Your task to perform on an android device: open app "TextNow: Call + Text Unlimited" (install if not already installed) Image 0: 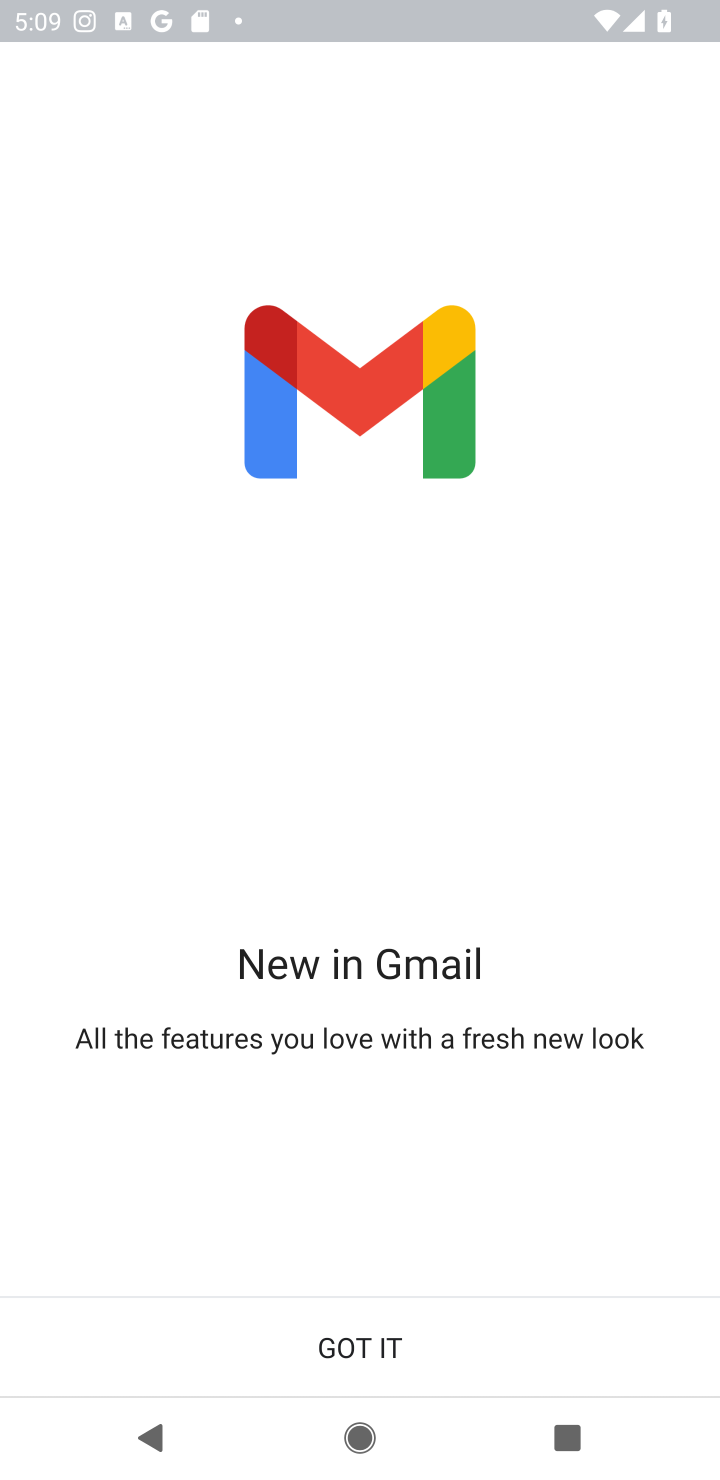
Step 0: press home button
Your task to perform on an android device: open app "TextNow: Call + Text Unlimited" (install if not already installed) Image 1: 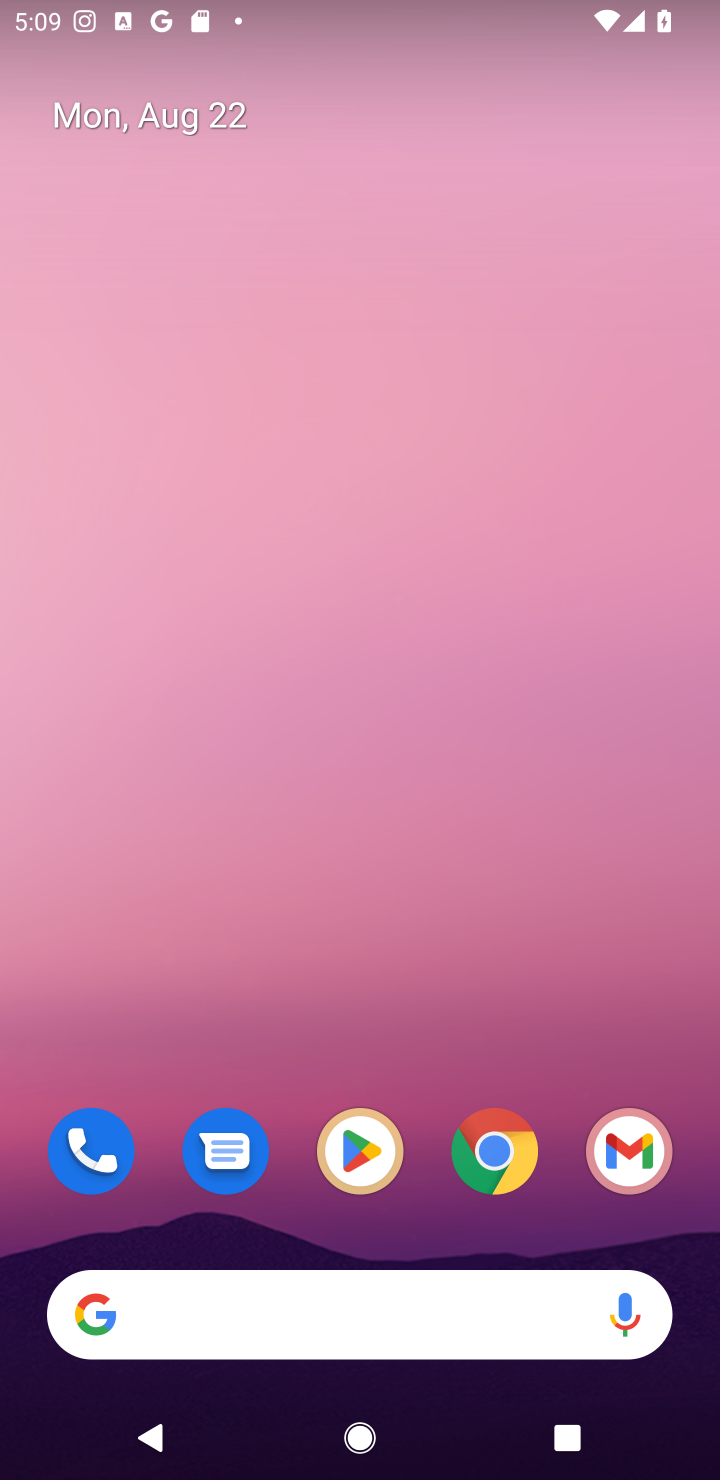
Step 1: click (355, 1138)
Your task to perform on an android device: open app "TextNow: Call + Text Unlimited" (install if not already installed) Image 2: 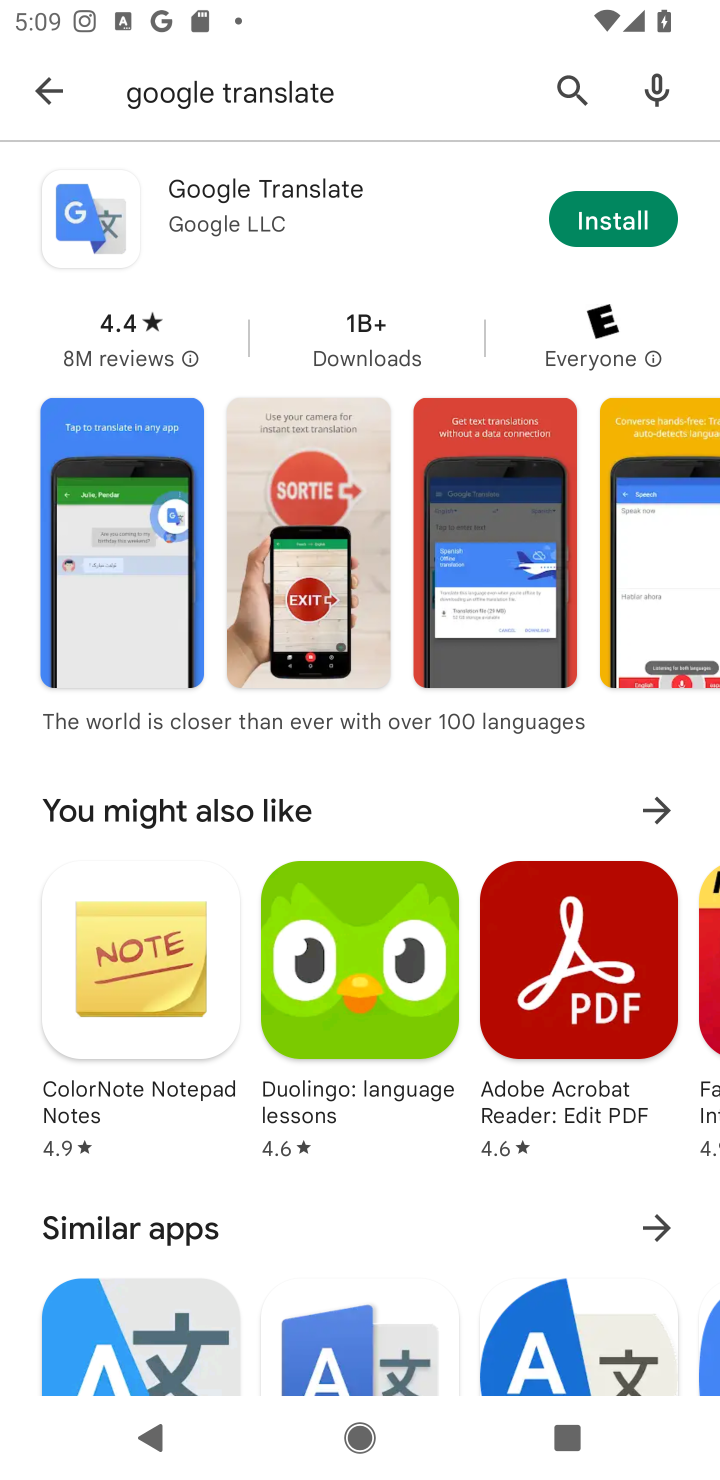
Step 2: click (566, 77)
Your task to perform on an android device: open app "TextNow: Call + Text Unlimited" (install if not already installed) Image 3: 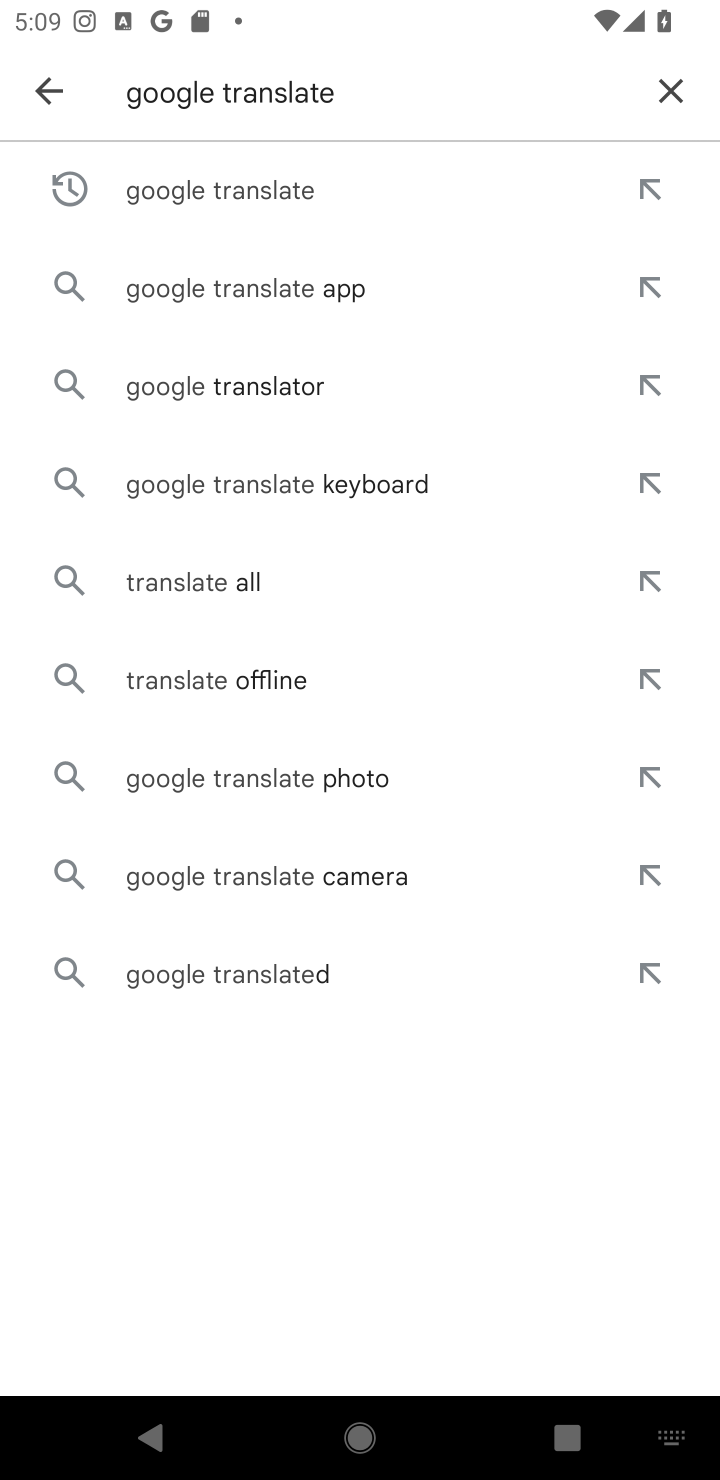
Step 3: click (660, 87)
Your task to perform on an android device: open app "TextNow: Call + Text Unlimited" (install if not already installed) Image 4: 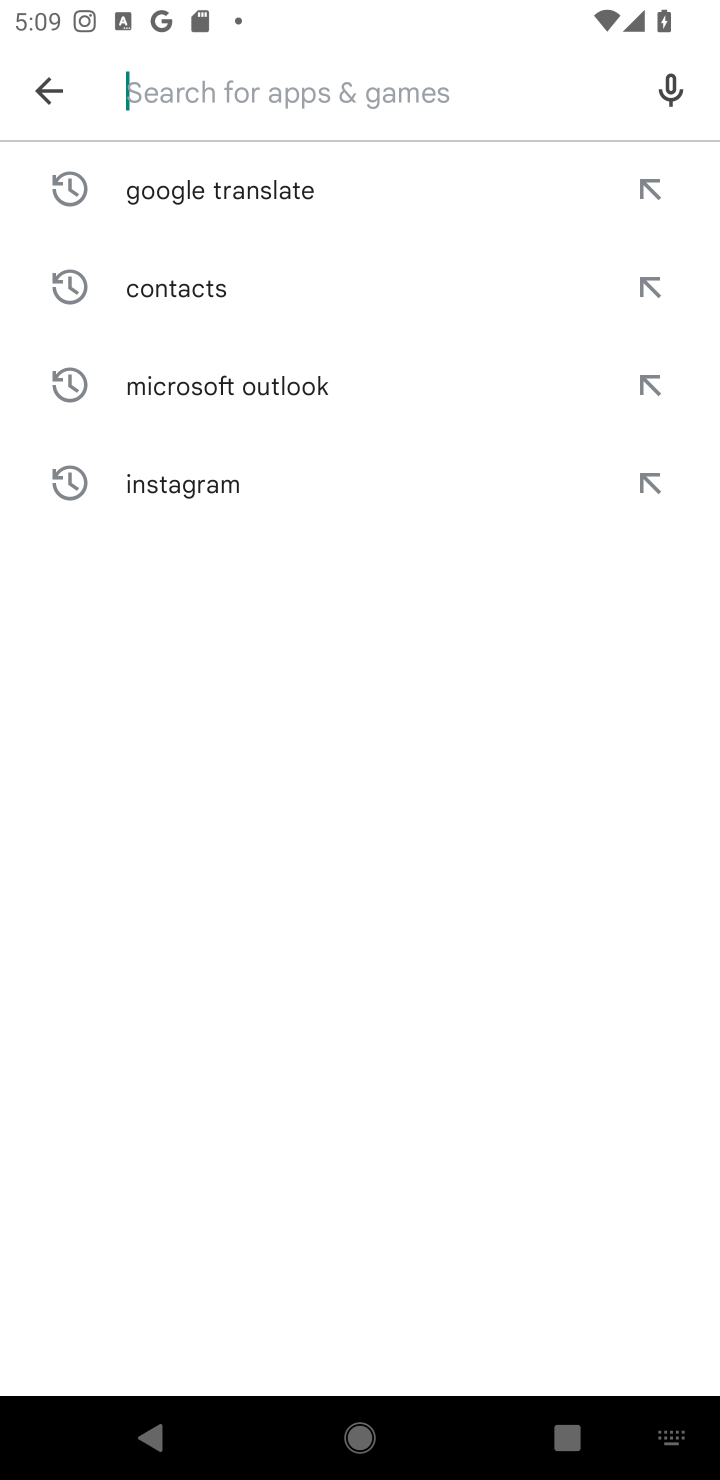
Step 4: type "TextNow: Call + Text Unlimited"
Your task to perform on an android device: open app "TextNow: Call + Text Unlimited" (install if not already installed) Image 5: 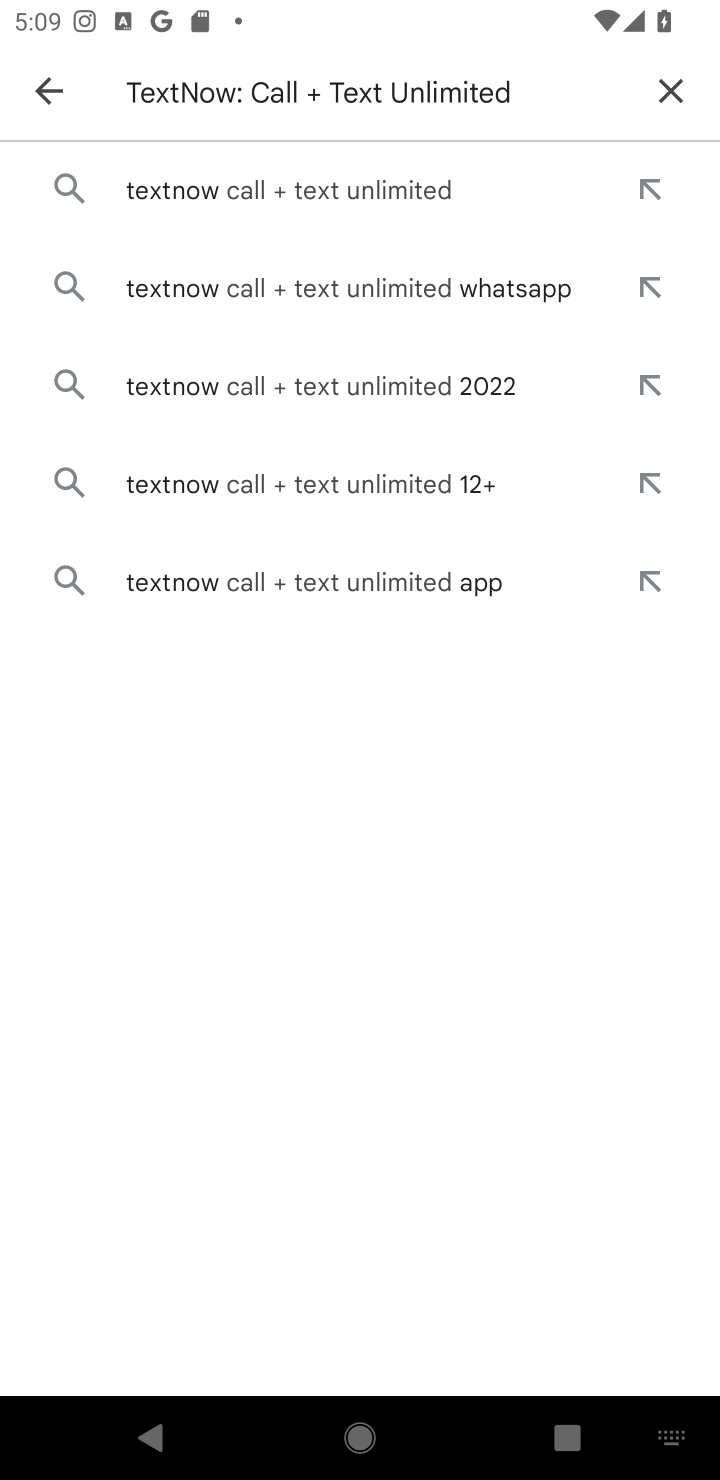
Step 5: click (371, 191)
Your task to perform on an android device: open app "TextNow: Call + Text Unlimited" (install if not already installed) Image 6: 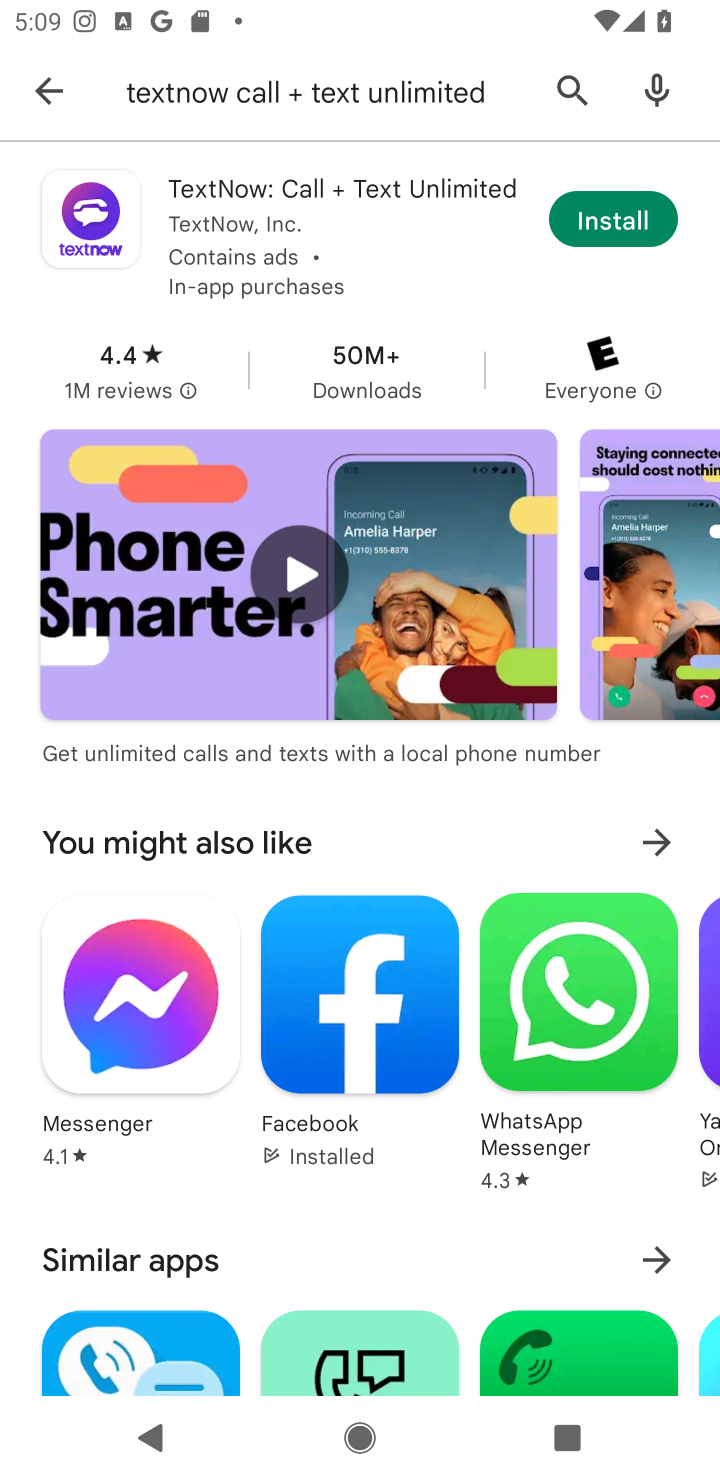
Step 6: click (630, 222)
Your task to perform on an android device: open app "TextNow: Call + Text Unlimited" (install if not already installed) Image 7: 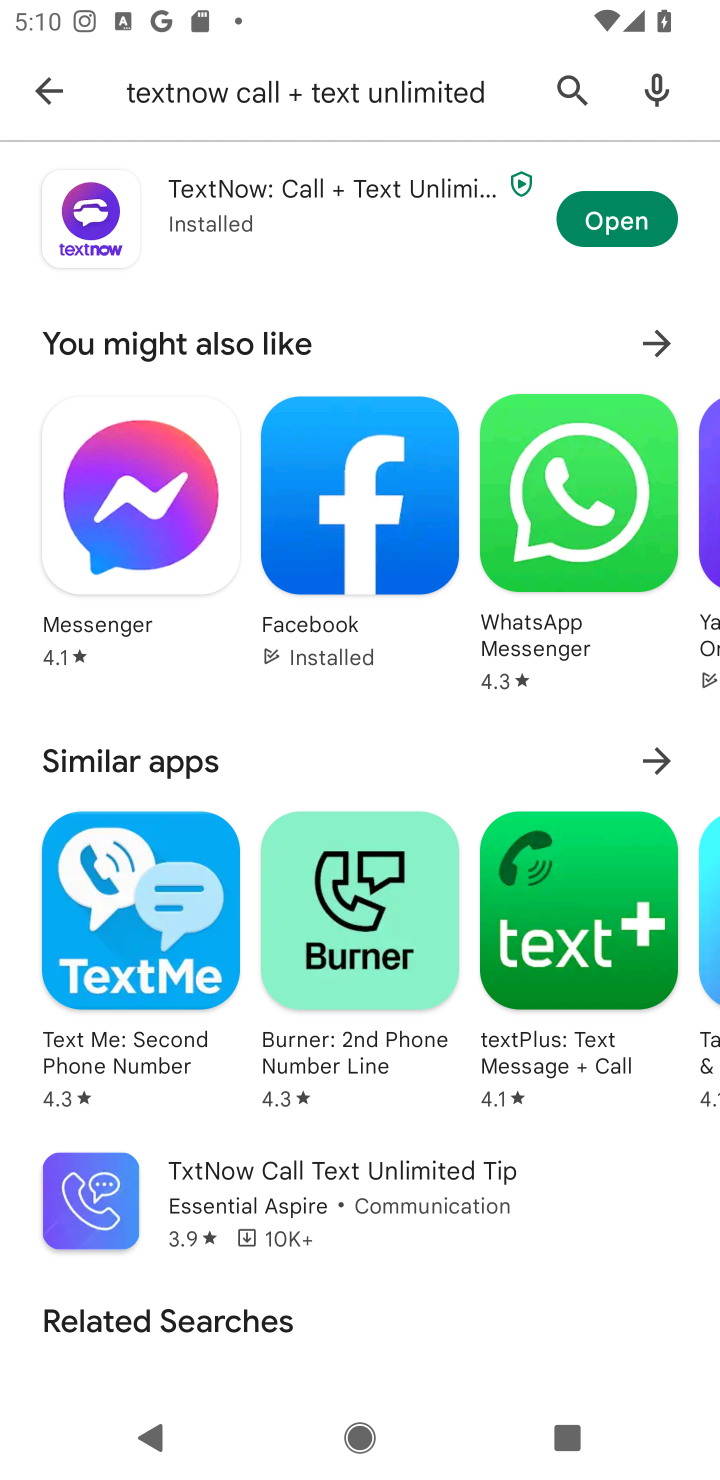
Step 7: click (652, 223)
Your task to perform on an android device: open app "TextNow: Call + Text Unlimited" (install if not already installed) Image 8: 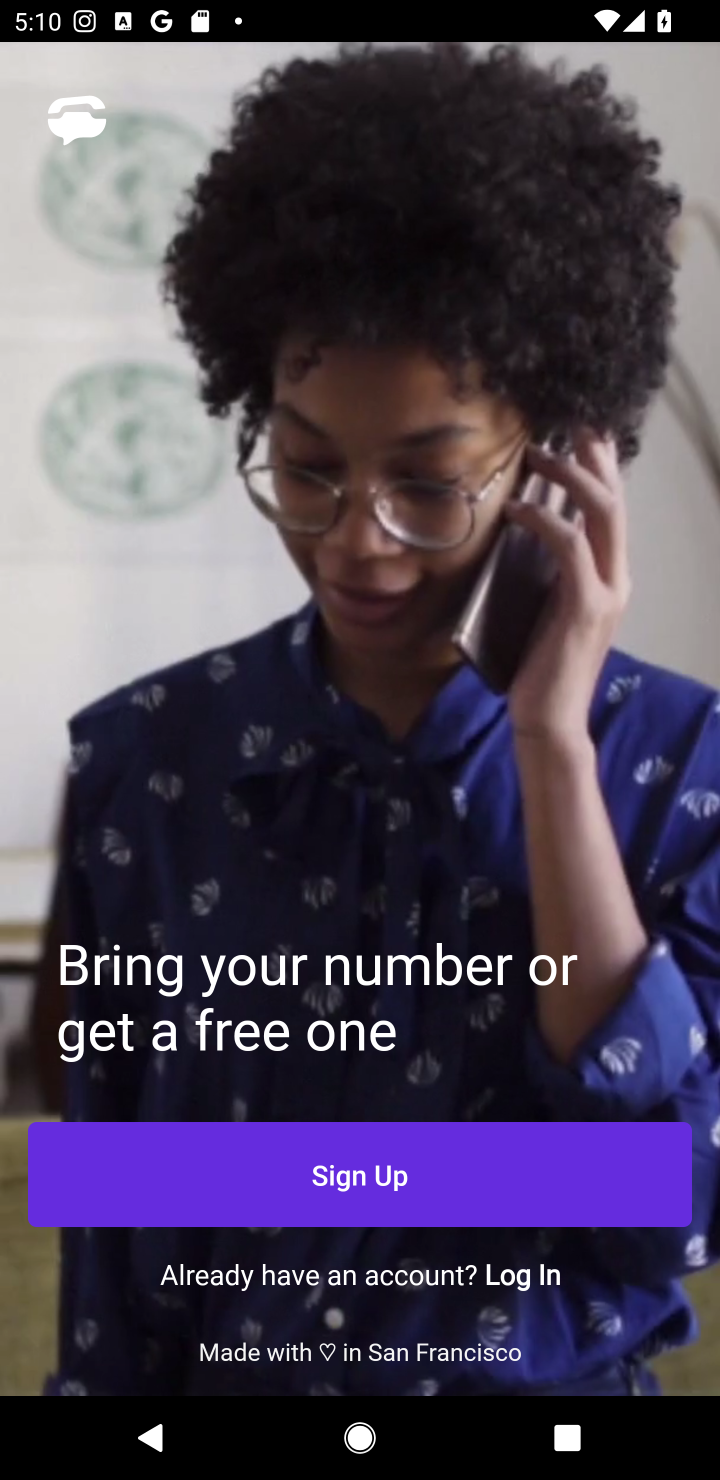
Step 8: task complete